Your task to perform on an android device: Search for Mexican restaurants on Maps Image 0: 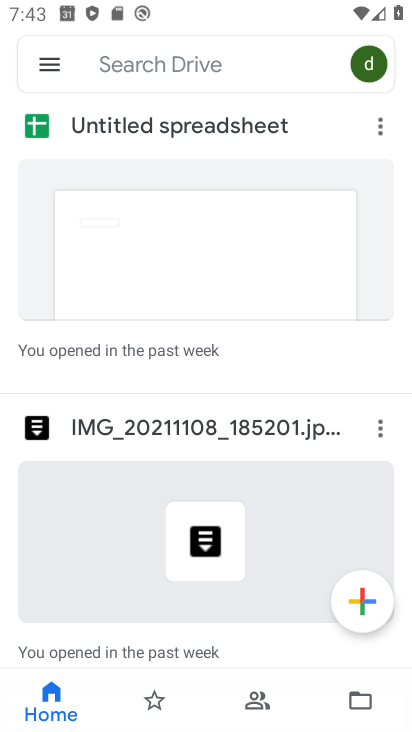
Step 0: press home button
Your task to perform on an android device: Search for Mexican restaurants on Maps Image 1: 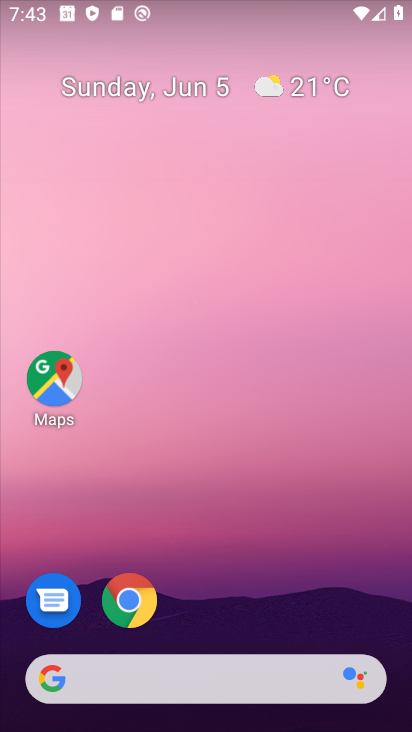
Step 1: click (58, 388)
Your task to perform on an android device: Search for Mexican restaurants on Maps Image 2: 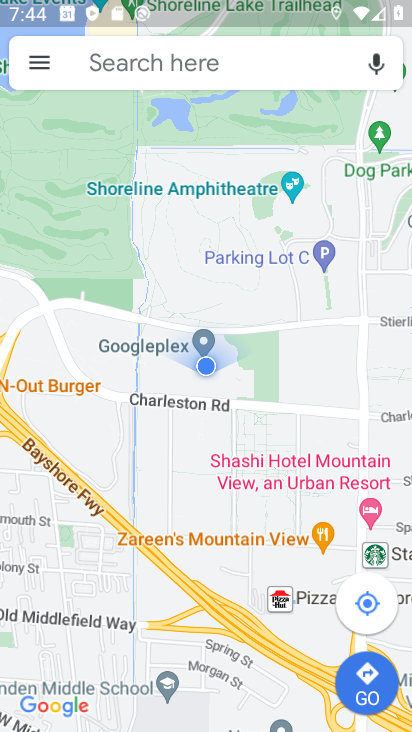
Step 2: click (209, 64)
Your task to perform on an android device: Search for Mexican restaurants on Maps Image 3: 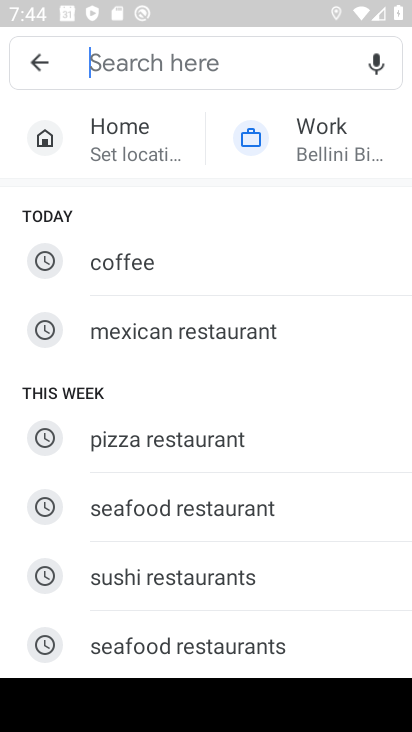
Step 3: click (211, 326)
Your task to perform on an android device: Search for Mexican restaurants on Maps Image 4: 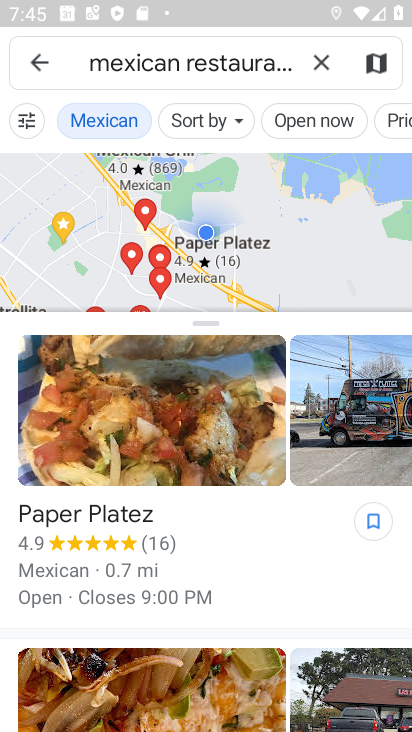
Step 4: task complete